Your task to perform on an android device: Find coffee shops on Maps Image 0: 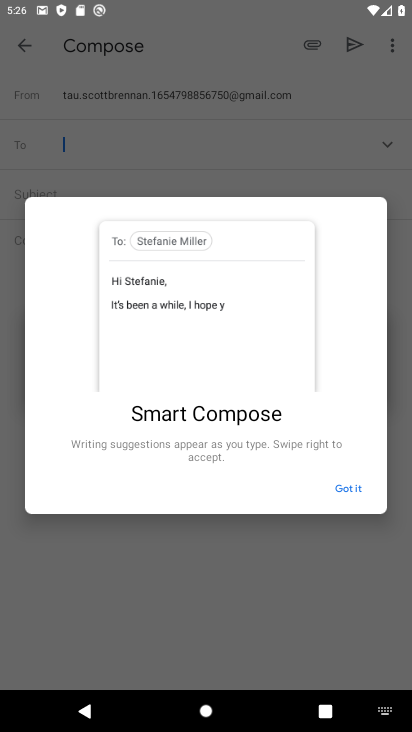
Step 0: press home button
Your task to perform on an android device: Find coffee shops on Maps Image 1: 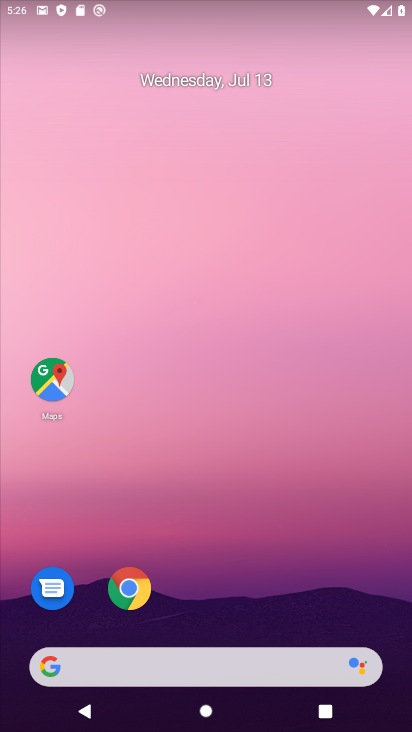
Step 1: drag from (188, 618) to (196, 35)
Your task to perform on an android device: Find coffee shops on Maps Image 2: 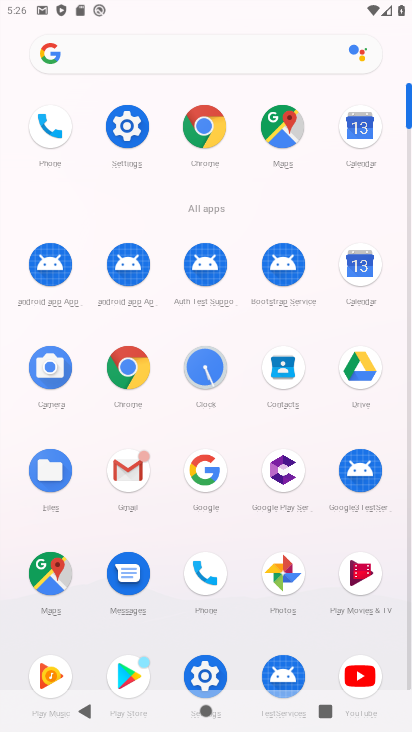
Step 2: click (296, 139)
Your task to perform on an android device: Find coffee shops on Maps Image 3: 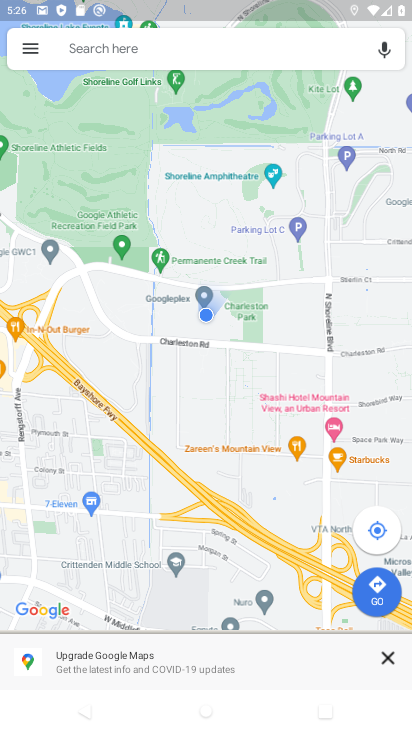
Step 3: click (190, 54)
Your task to perform on an android device: Find coffee shops on Maps Image 4: 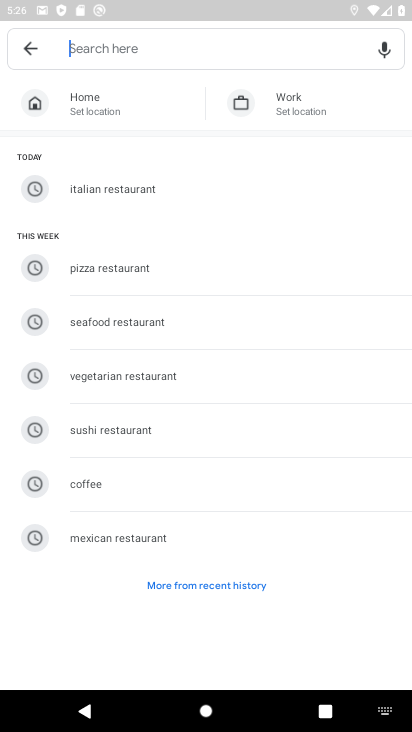
Step 4: type "coffee shops"
Your task to perform on an android device: Find coffee shops on Maps Image 5: 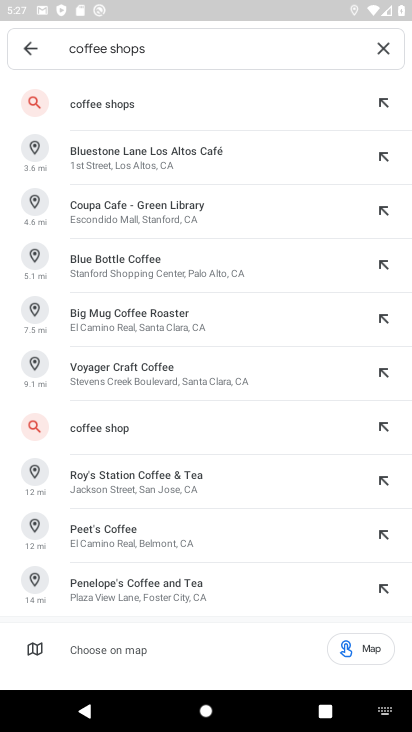
Step 5: click (109, 105)
Your task to perform on an android device: Find coffee shops on Maps Image 6: 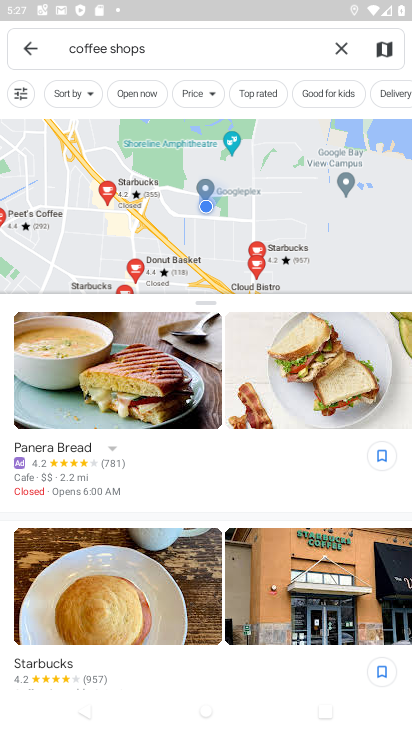
Step 6: task complete